Your task to perform on an android device: Open location settings Image 0: 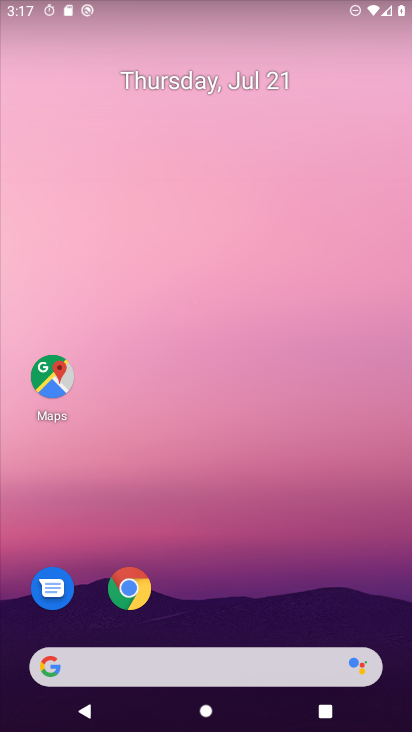
Step 0: drag from (296, 667) to (335, 114)
Your task to perform on an android device: Open location settings Image 1: 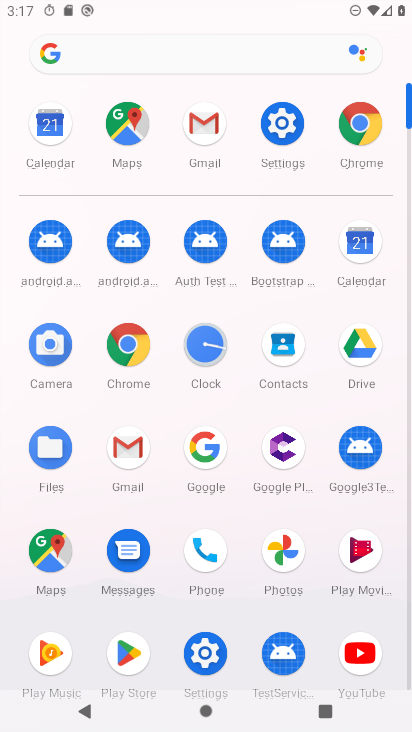
Step 1: click (274, 124)
Your task to perform on an android device: Open location settings Image 2: 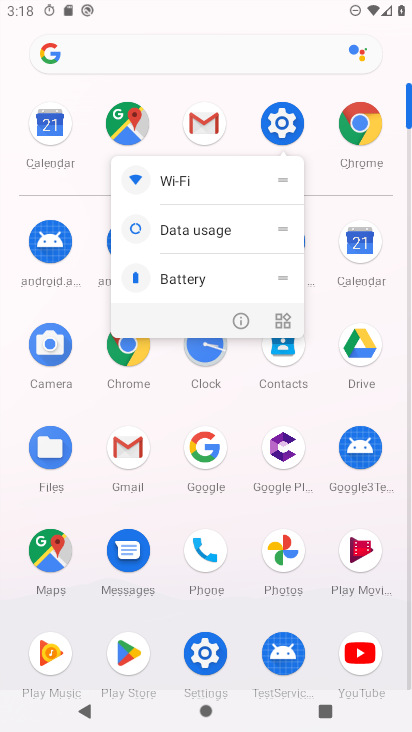
Step 2: click (276, 122)
Your task to perform on an android device: Open location settings Image 3: 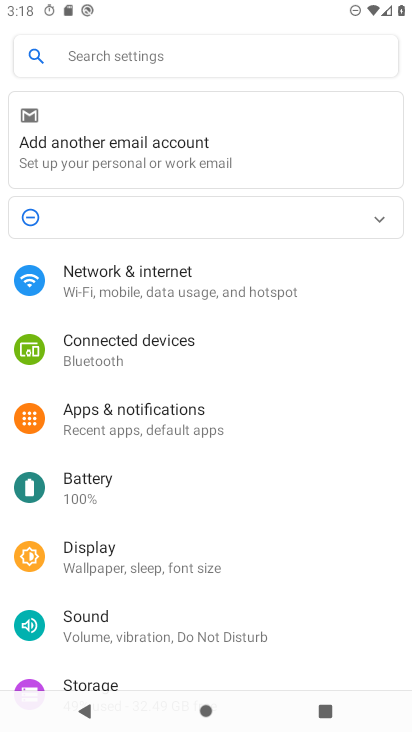
Step 3: drag from (242, 568) to (332, 263)
Your task to perform on an android device: Open location settings Image 4: 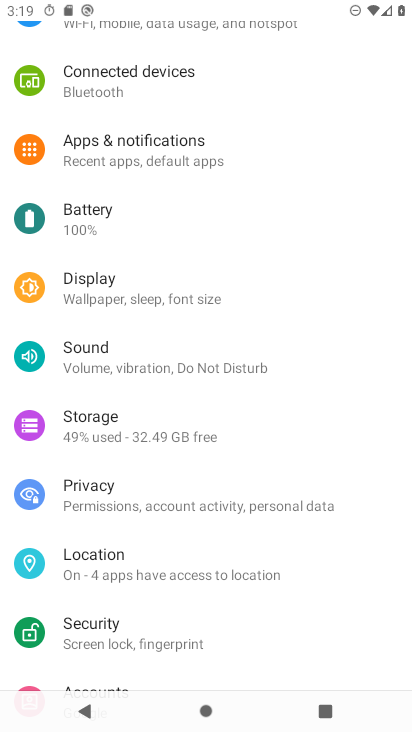
Step 4: click (153, 589)
Your task to perform on an android device: Open location settings Image 5: 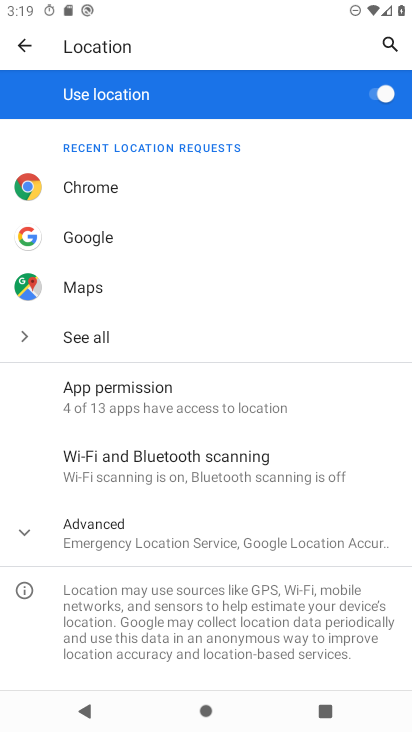
Step 5: task complete